Your task to perform on an android device: Empty the shopping cart on amazon. Image 0: 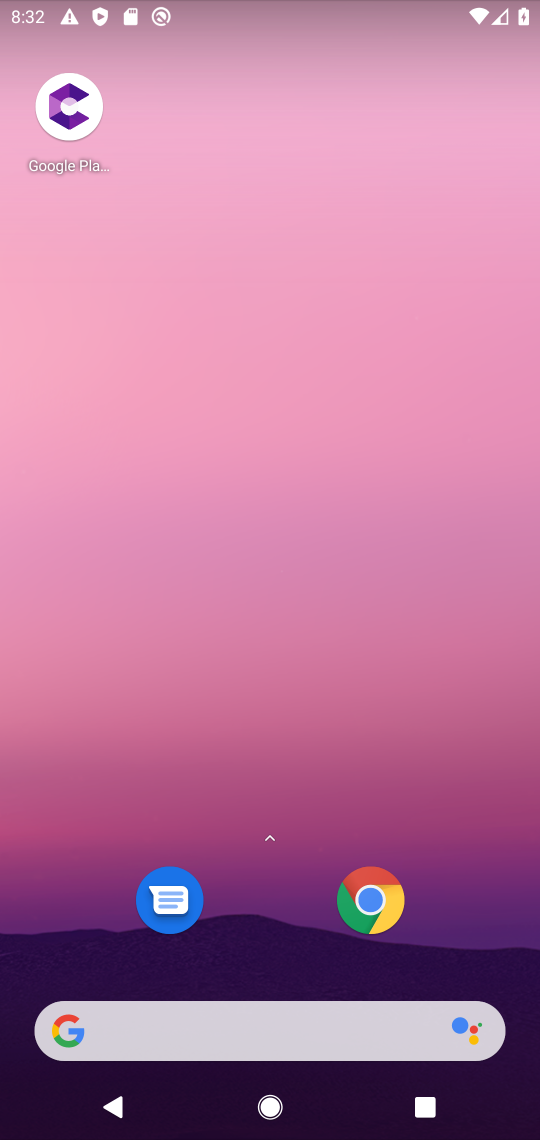
Step 0: drag from (356, 1062) to (221, 93)
Your task to perform on an android device: Empty the shopping cart on amazon. Image 1: 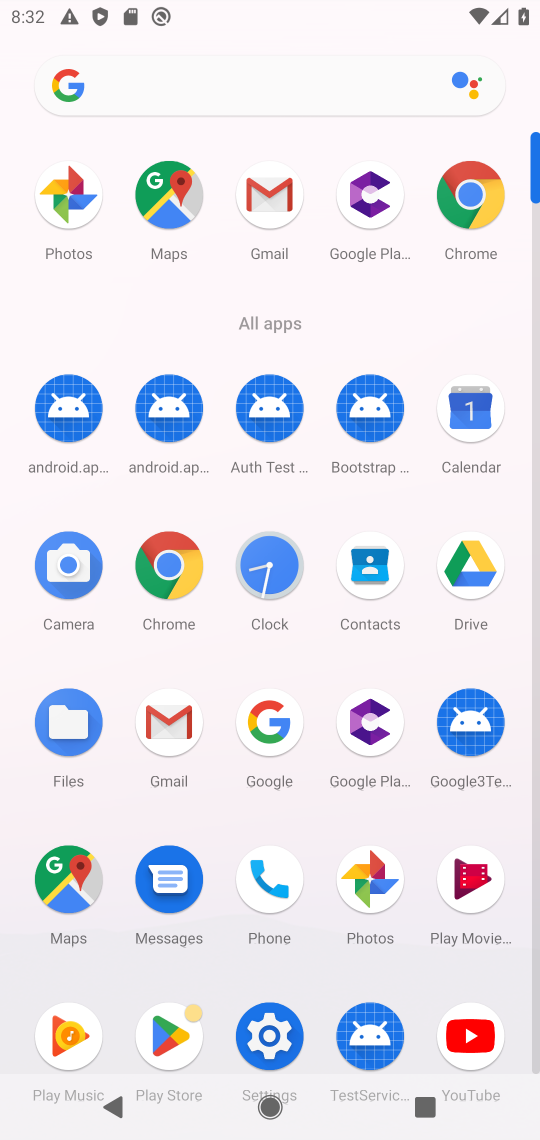
Step 1: click (172, 565)
Your task to perform on an android device: Empty the shopping cart on amazon. Image 2: 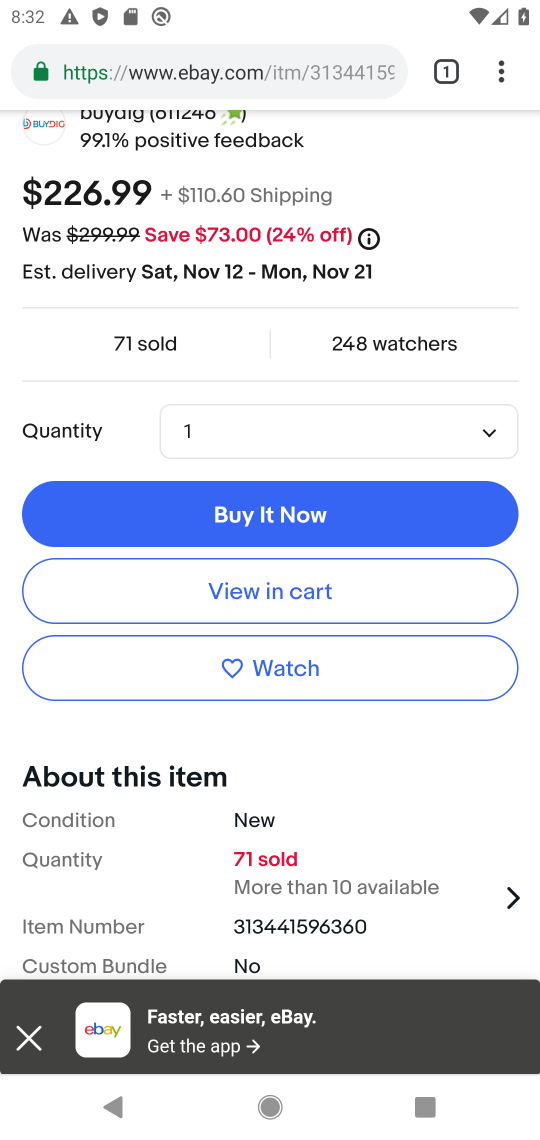
Step 2: click (138, 68)
Your task to perform on an android device: Empty the shopping cart on amazon. Image 3: 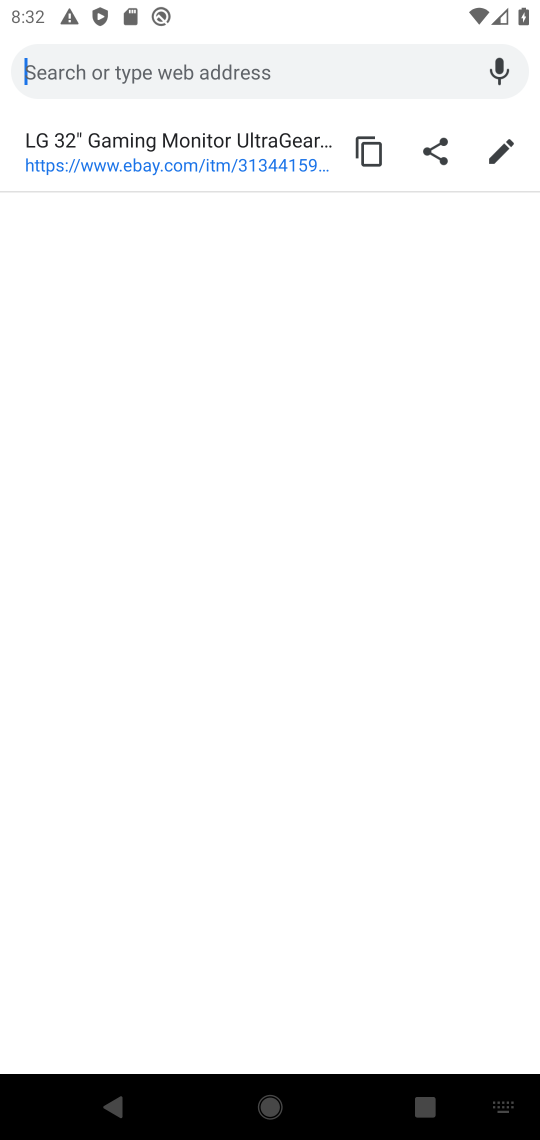
Step 3: type "amazon"
Your task to perform on an android device: Empty the shopping cart on amazon. Image 4: 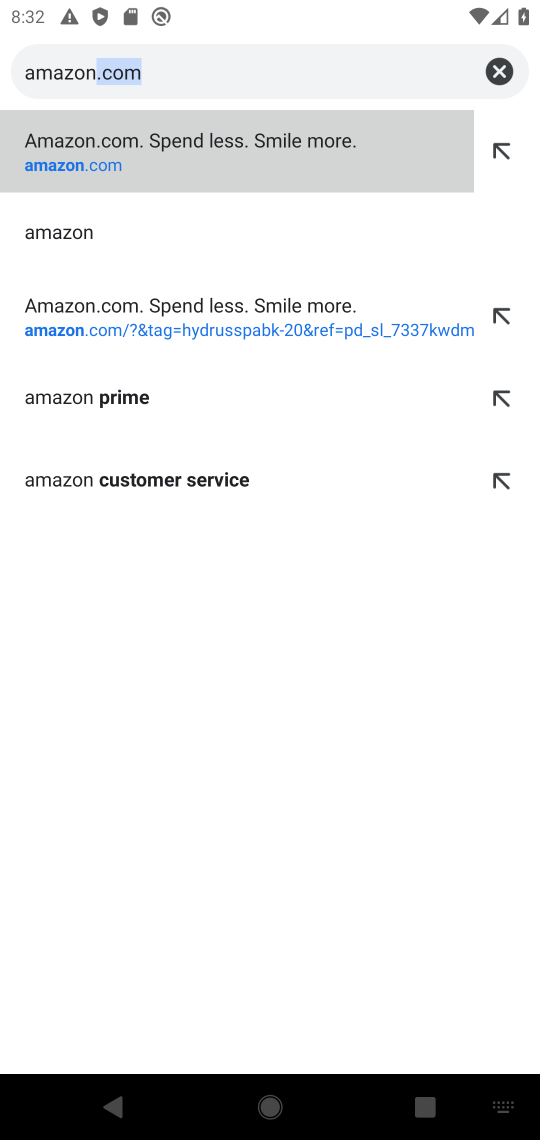
Step 4: click (68, 163)
Your task to perform on an android device: Empty the shopping cart on amazon. Image 5: 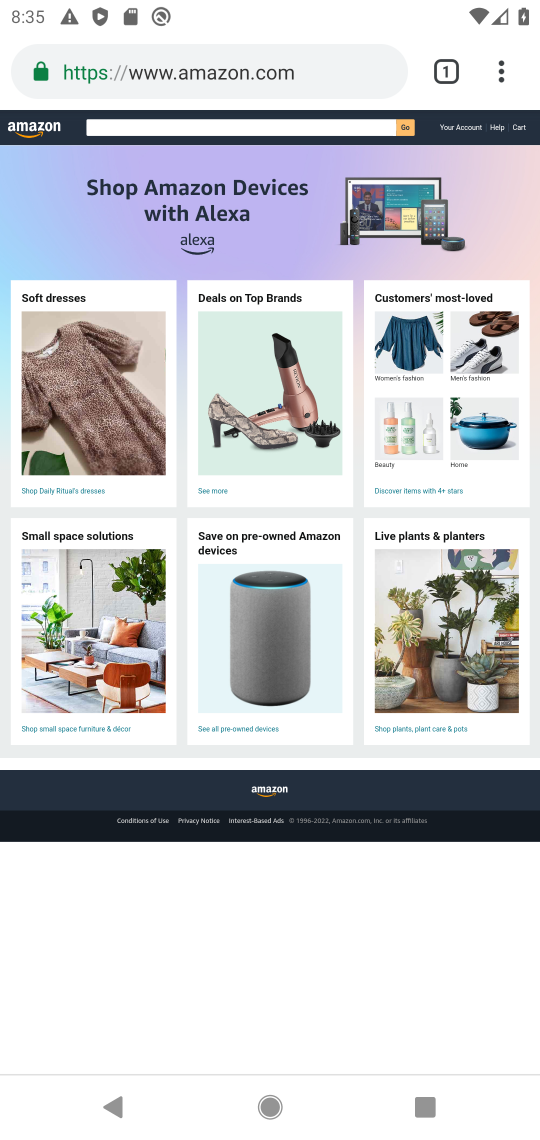
Step 5: task complete